Your task to perform on an android device: delete a single message in the gmail app Image 0: 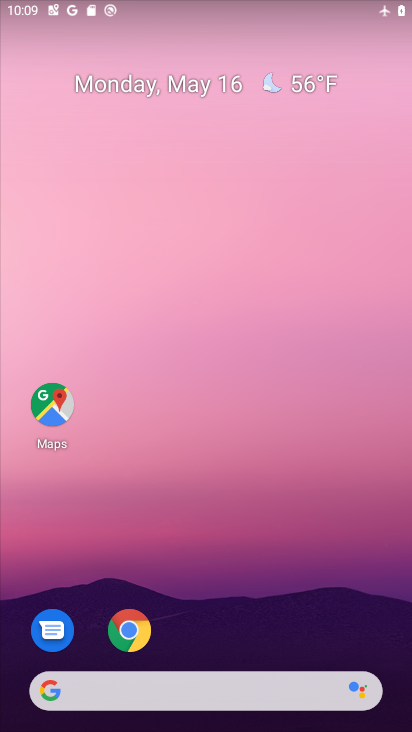
Step 0: drag from (225, 546) to (236, 139)
Your task to perform on an android device: delete a single message in the gmail app Image 1: 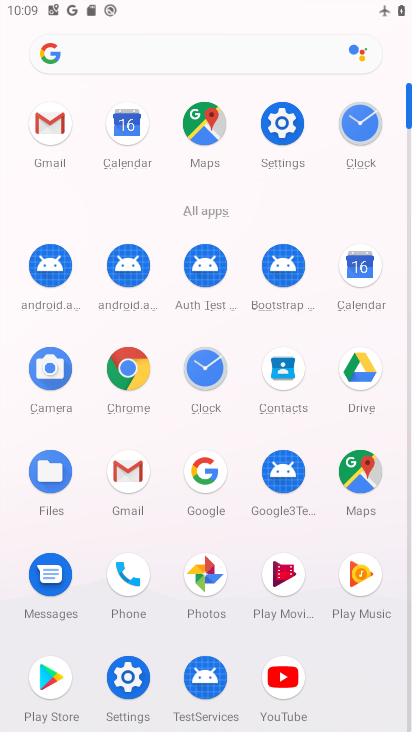
Step 1: click (55, 120)
Your task to perform on an android device: delete a single message in the gmail app Image 2: 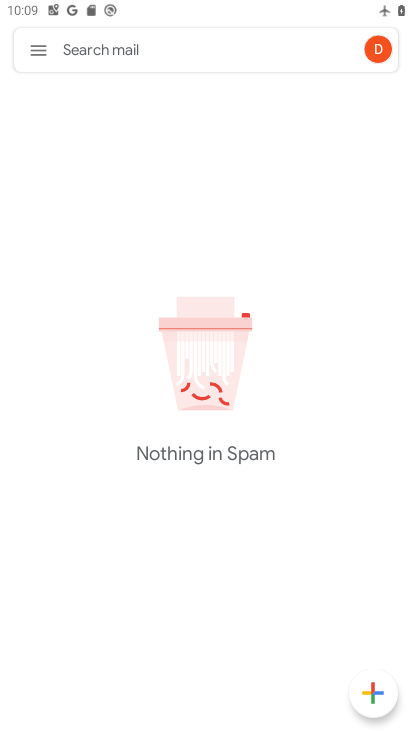
Step 2: click (42, 48)
Your task to perform on an android device: delete a single message in the gmail app Image 3: 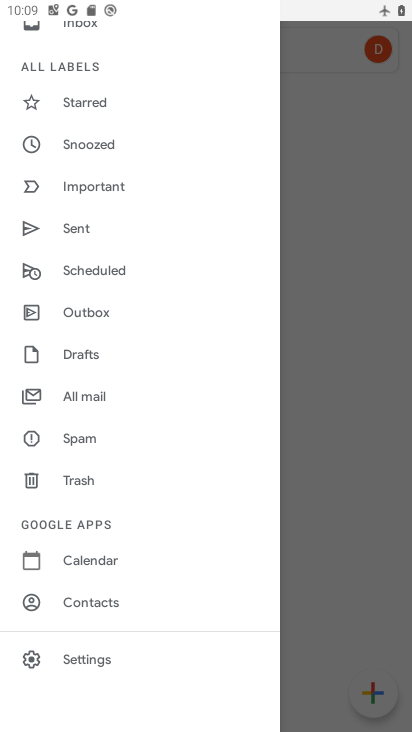
Step 3: click (84, 389)
Your task to perform on an android device: delete a single message in the gmail app Image 4: 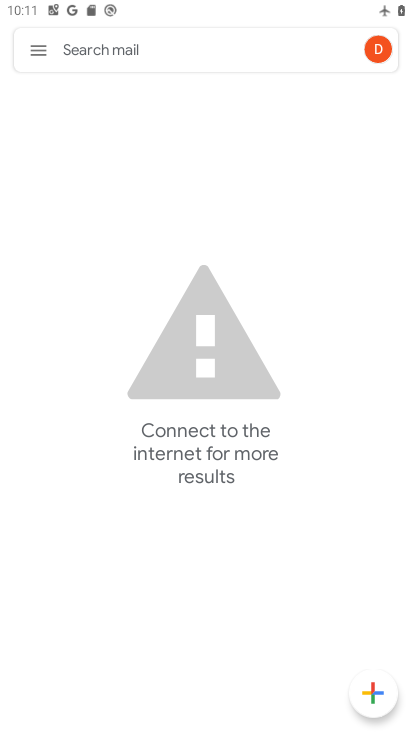
Step 4: task complete